Your task to perform on an android device: turn off priority inbox in the gmail app Image 0: 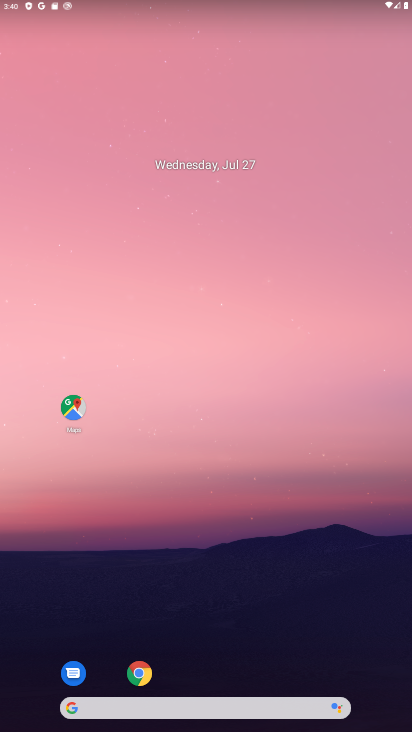
Step 0: drag from (250, 677) to (272, 7)
Your task to perform on an android device: turn off priority inbox in the gmail app Image 1: 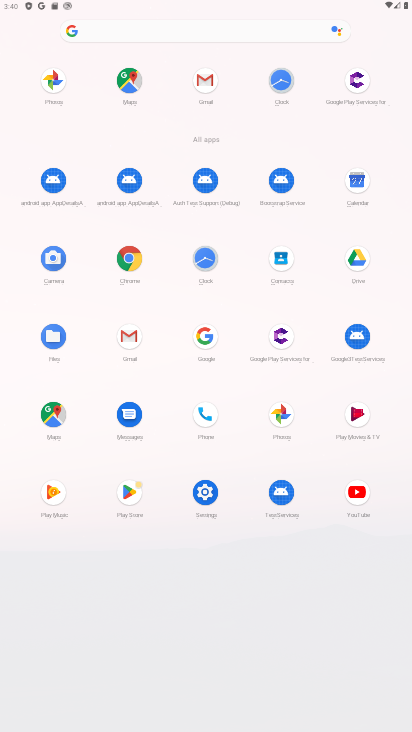
Step 1: click (208, 93)
Your task to perform on an android device: turn off priority inbox in the gmail app Image 2: 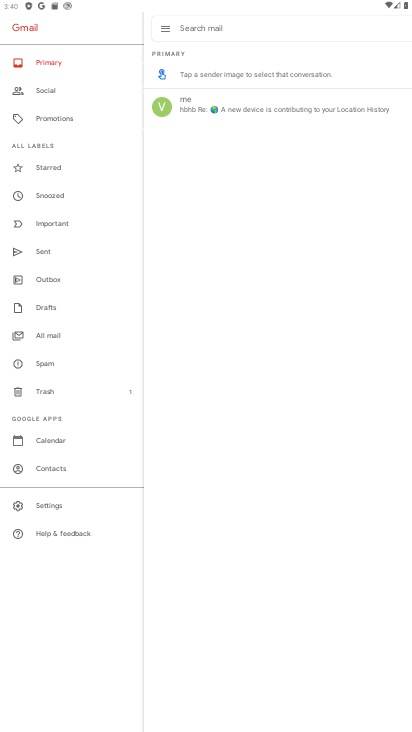
Step 2: click (76, 496)
Your task to perform on an android device: turn off priority inbox in the gmail app Image 3: 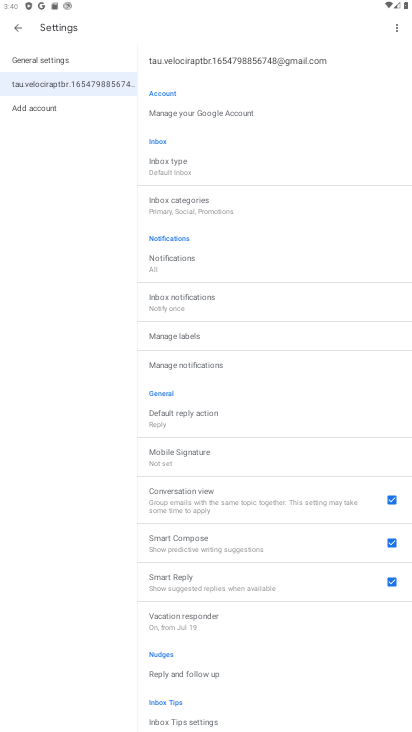
Step 3: click (179, 167)
Your task to perform on an android device: turn off priority inbox in the gmail app Image 4: 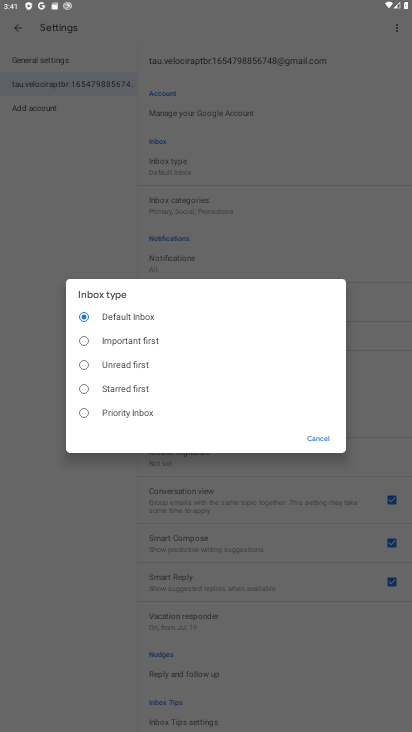
Step 4: task complete